Your task to perform on an android device: turn off airplane mode Image 0: 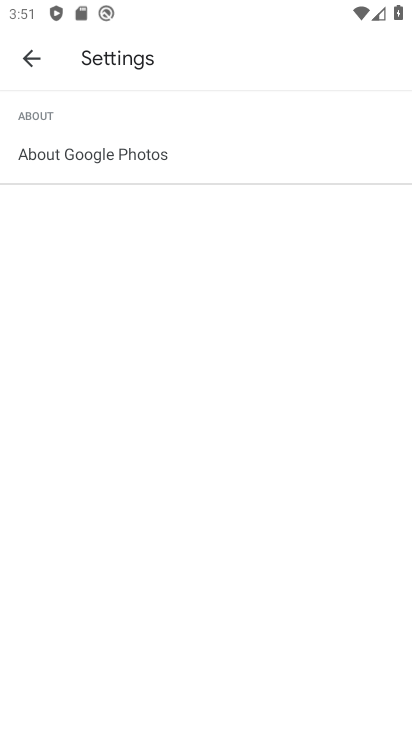
Step 0: drag from (313, 672) to (296, 191)
Your task to perform on an android device: turn off airplane mode Image 1: 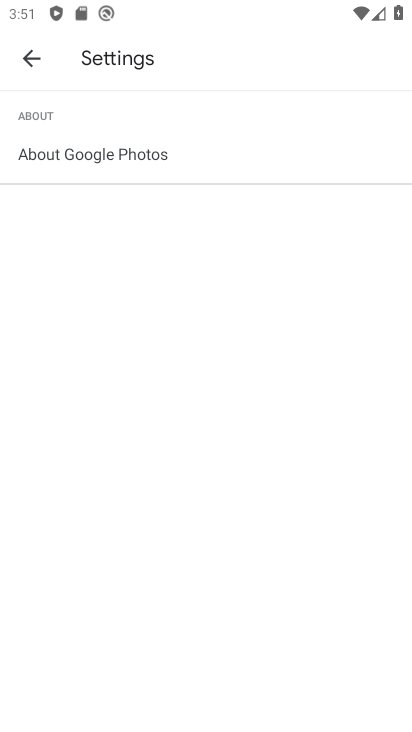
Step 1: press home button
Your task to perform on an android device: turn off airplane mode Image 2: 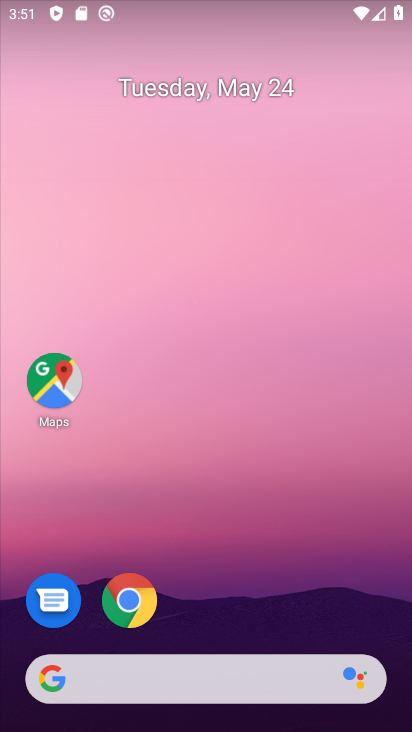
Step 2: drag from (153, 628) to (126, 38)
Your task to perform on an android device: turn off airplane mode Image 3: 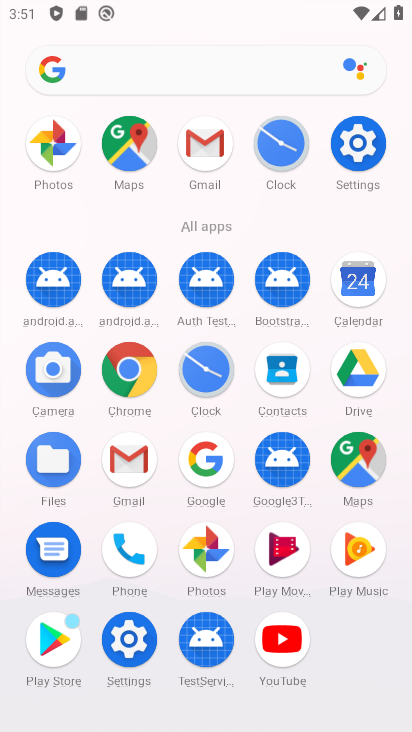
Step 3: click (343, 141)
Your task to perform on an android device: turn off airplane mode Image 4: 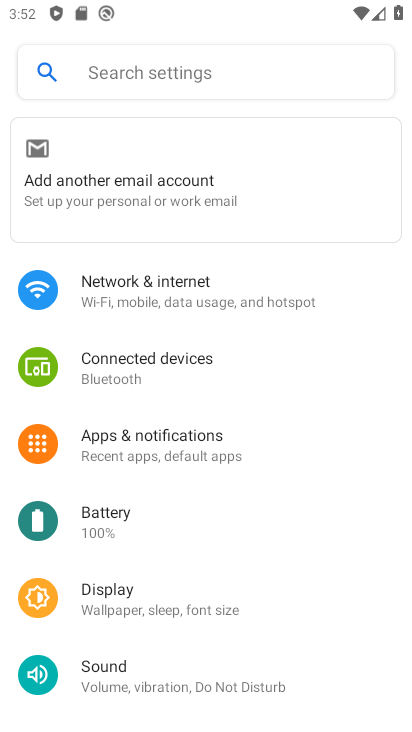
Step 4: click (146, 296)
Your task to perform on an android device: turn off airplane mode Image 5: 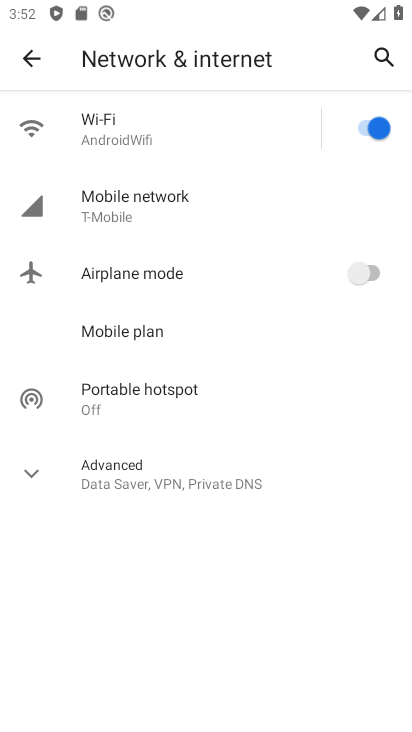
Step 5: task complete